Your task to perform on an android device: stop showing notifications on the lock screen Image 0: 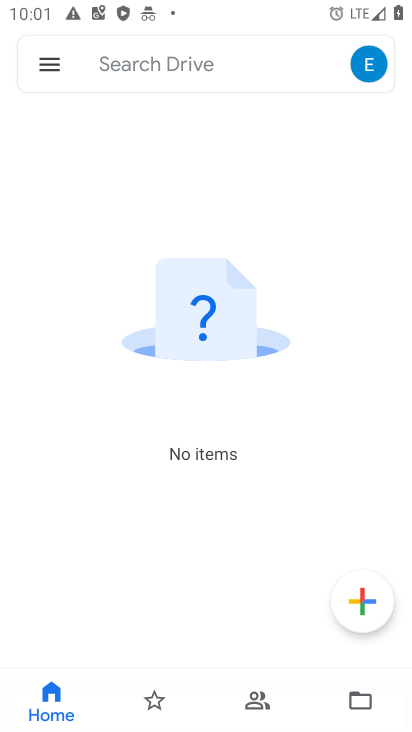
Step 0: press home button
Your task to perform on an android device: stop showing notifications on the lock screen Image 1: 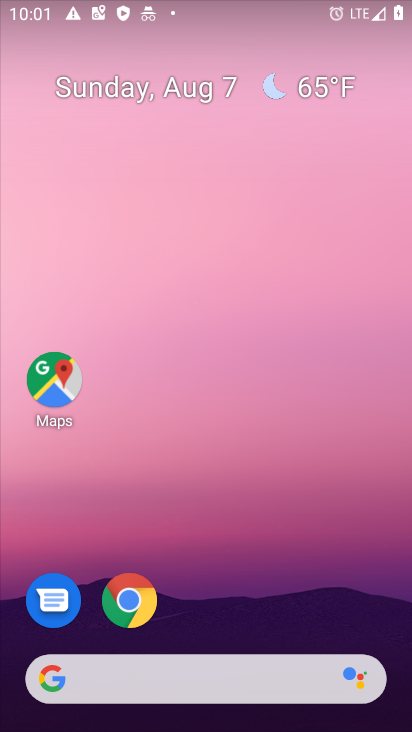
Step 1: drag from (212, 393) to (248, 21)
Your task to perform on an android device: stop showing notifications on the lock screen Image 2: 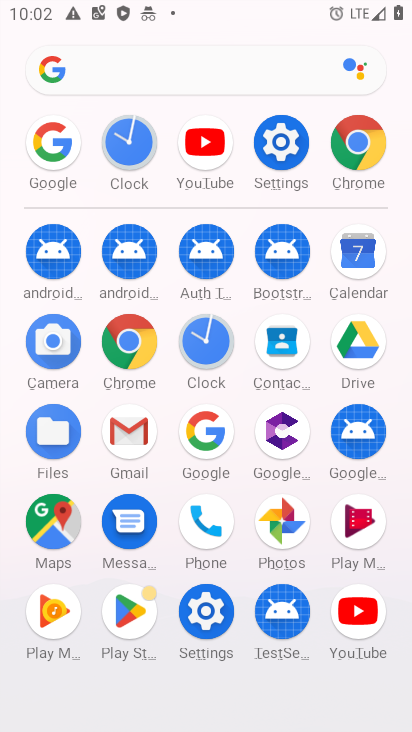
Step 2: click (206, 607)
Your task to perform on an android device: stop showing notifications on the lock screen Image 3: 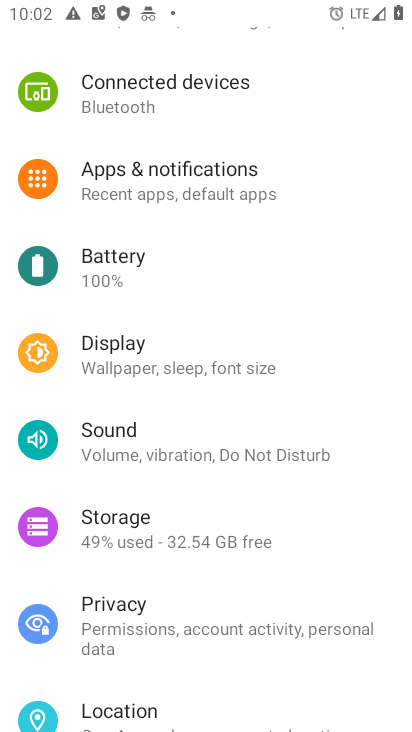
Step 3: click (206, 170)
Your task to perform on an android device: stop showing notifications on the lock screen Image 4: 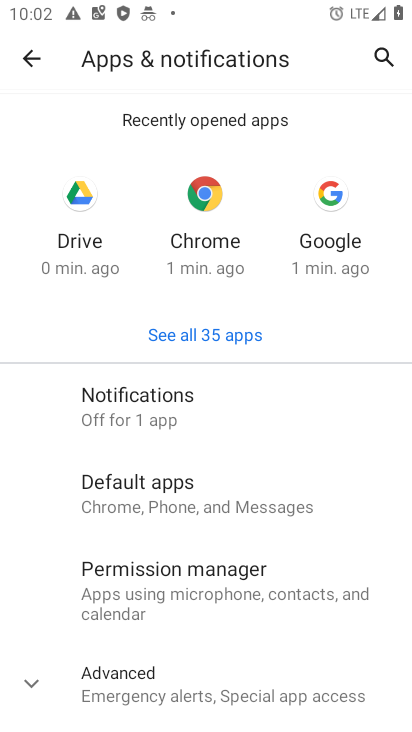
Step 4: click (154, 418)
Your task to perform on an android device: stop showing notifications on the lock screen Image 5: 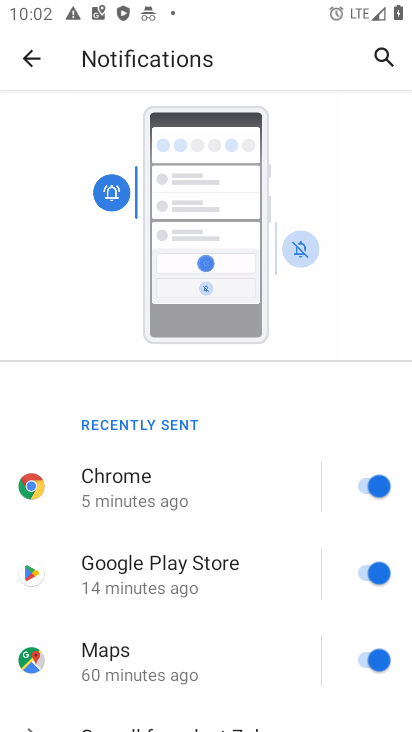
Step 5: drag from (253, 418) to (256, 174)
Your task to perform on an android device: stop showing notifications on the lock screen Image 6: 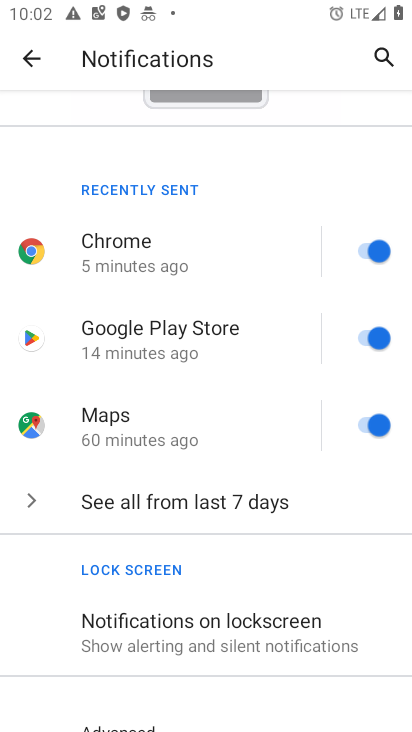
Step 6: click (219, 626)
Your task to perform on an android device: stop showing notifications on the lock screen Image 7: 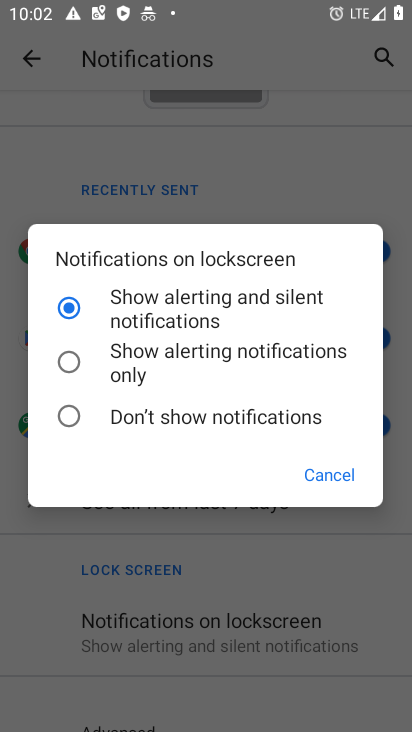
Step 7: click (75, 411)
Your task to perform on an android device: stop showing notifications on the lock screen Image 8: 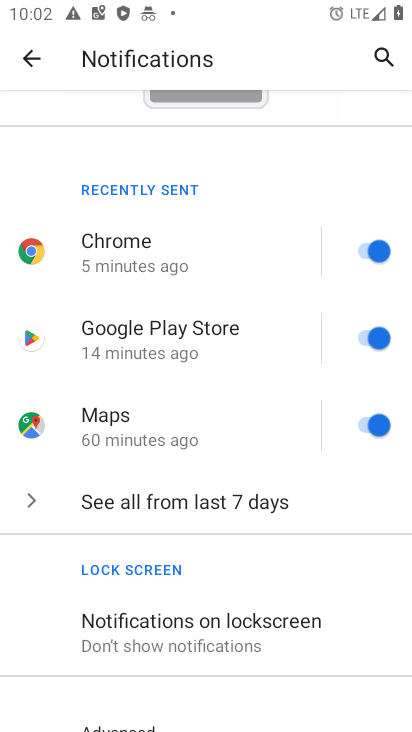
Step 8: task complete